Your task to perform on an android device: Open Youtube and go to "Your channel" Image 0: 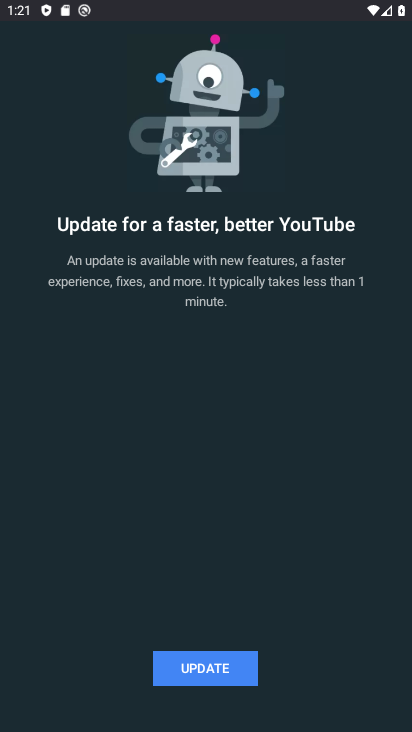
Step 0: click (191, 667)
Your task to perform on an android device: Open Youtube and go to "Your channel" Image 1: 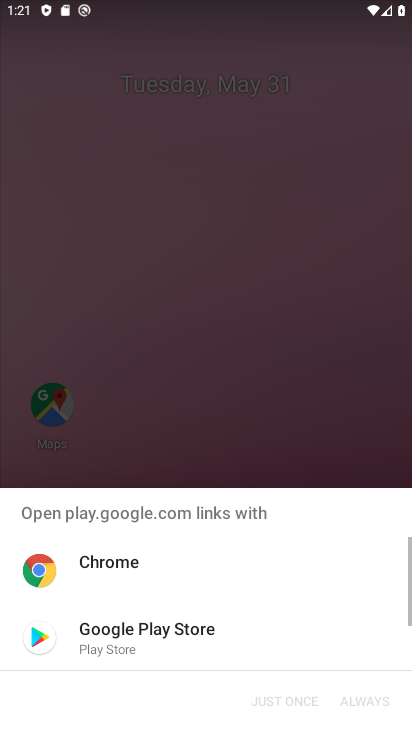
Step 1: click (142, 625)
Your task to perform on an android device: Open Youtube and go to "Your channel" Image 2: 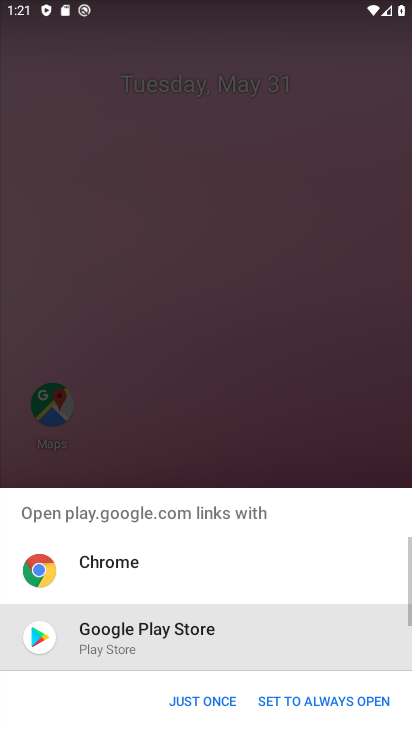
Step 2: click (181, 699)
Your task to perform on an android device: Open Youtube and go to "Your channel" Image 3: 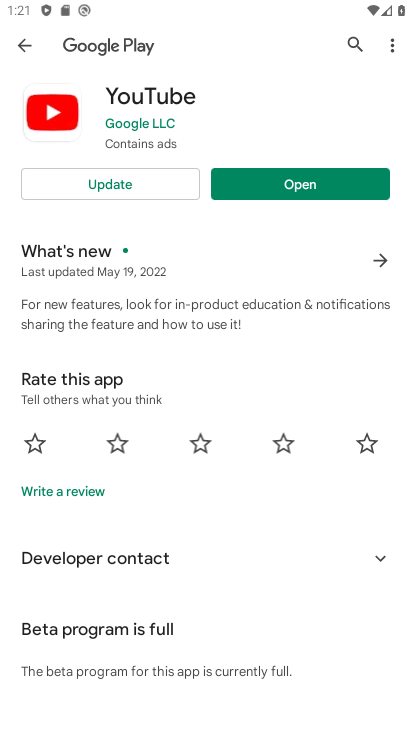
Step 3: click (115, 179)
Your task to perform on an android device: Open Youtube and go to "Your channel" Image 4: 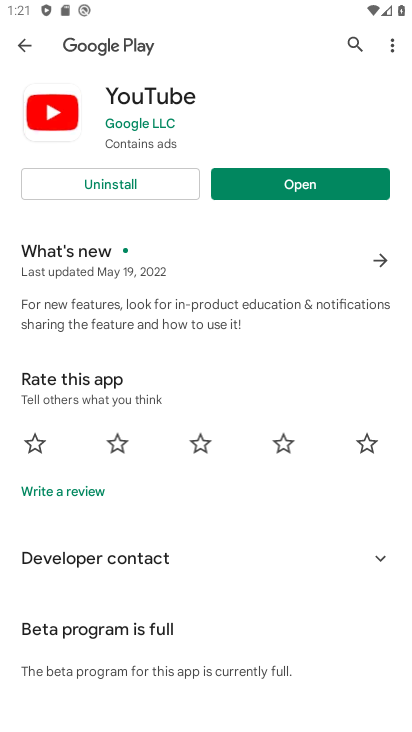
Step 4: click (278, 173)
Your task to perform on an android device: Open Youtube and go to "Your channel" Image 5: 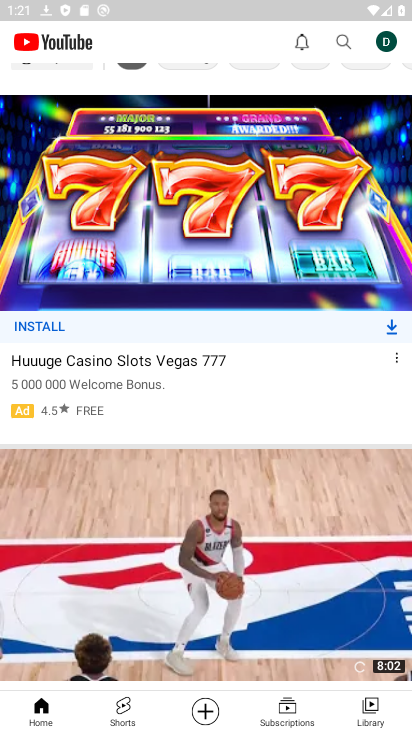
Step 5: click (369, 718)
Your task to perform on an android device: Open Youtube and go to "Your channel" Image 6: 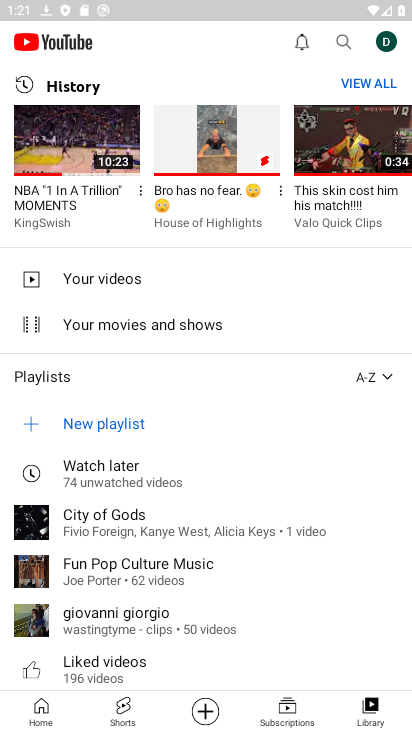
Step 6: click (143, 269)
Your task to perform on an android device: Open Youtube and go to "Your channel" Image 7: 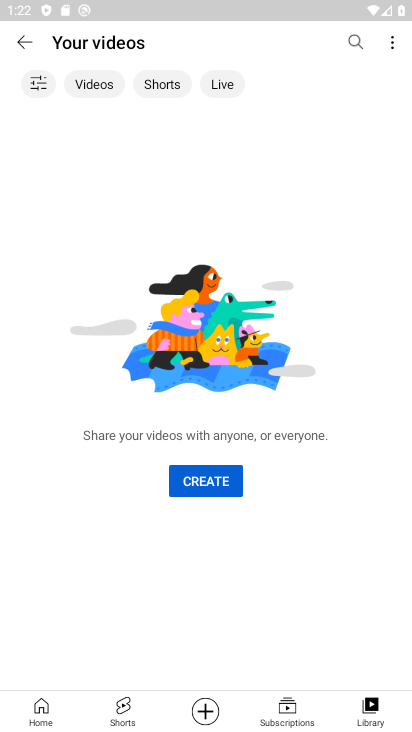
Step 7: task complete